Your task to perform on an android device: Do I have any events today? Image 0: 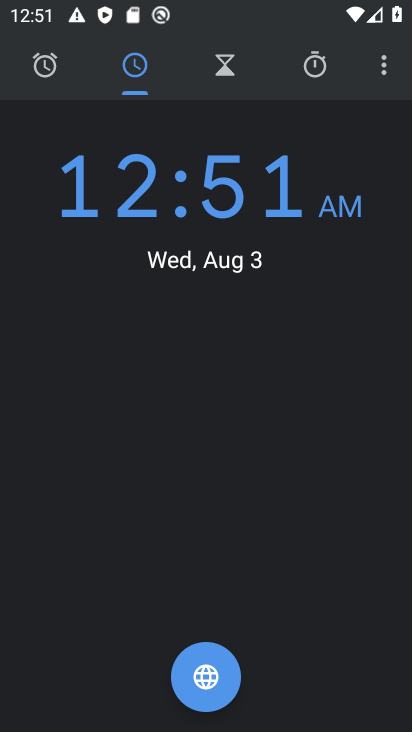
Step 0: press back button
Your task to perform on an android device: Do I have any events today? Image 1: 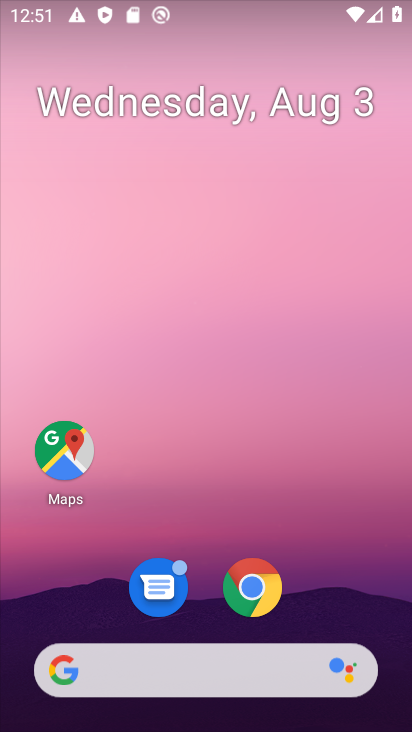
Step 1: drag from (340, 612) to (212, 87)
Your task to perform on an android device: Do I have any events today? Image 2: 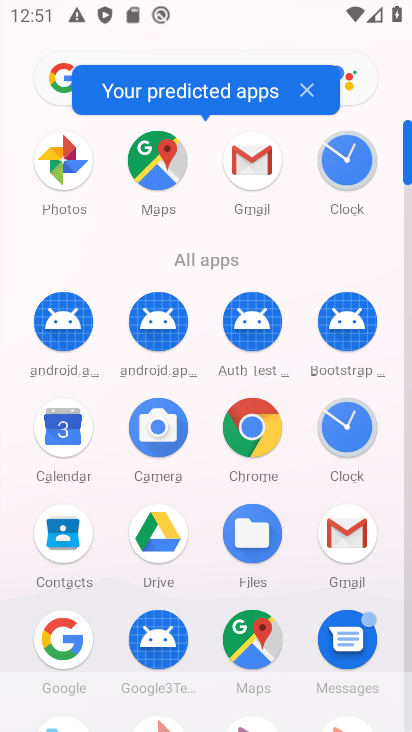
Step 2: drag from (63, 432) to (136, 187)
Your task to perform on an android device: Do I have any events today? Image 3: 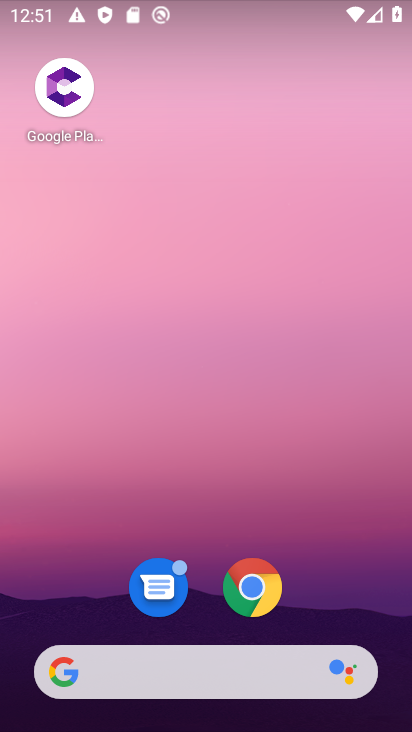
Step 3: drag from (12, 420) to (405, 345)
Your task to perform on an android device: Do I have any events today? Image 4: 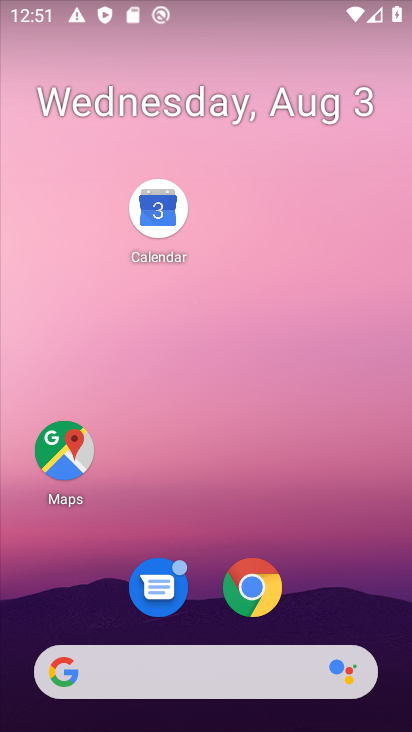
Step 4: click (158, 216)
Your task to perform on an android device: Do I have any events today? Image 5: 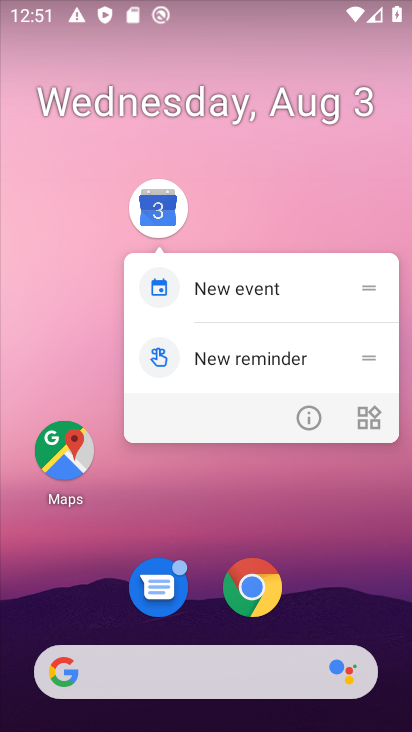
Step 5: click (158, 216)
Your task to perform on an android device: Do I have any events today? Image 6: 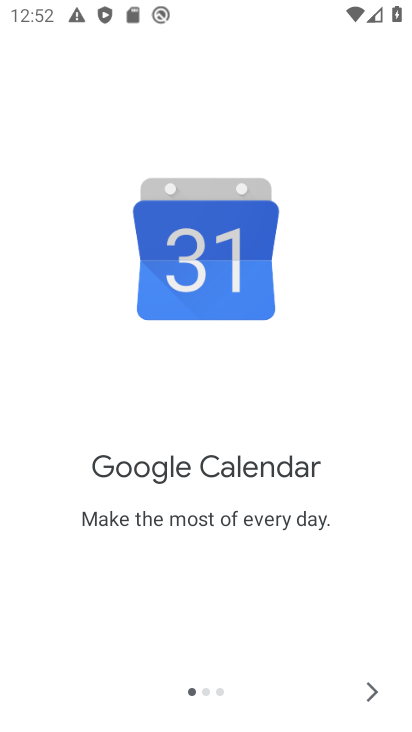
Step 6: click (370, 703)
Your task to perform on an android device: Do I have any events today? Image 7: 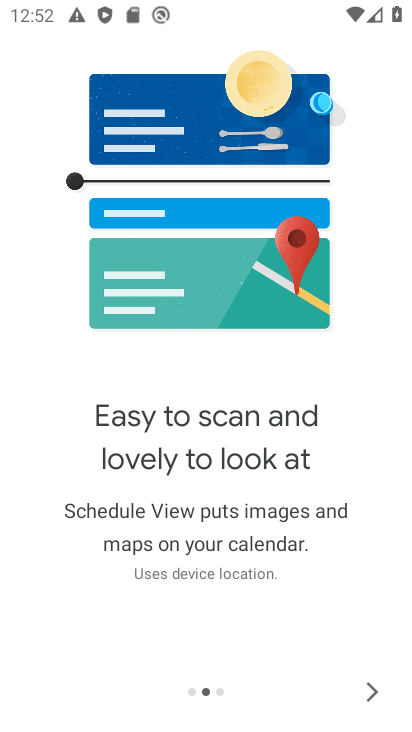
Step 7: click (371, 703)
Your task to perform on an android device: Do I have any events today? Image 8: 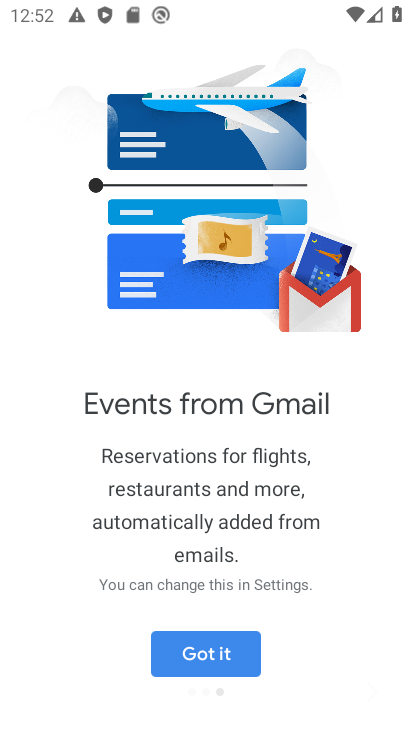
Step 8: click (374, 703)
Your task to perform on an android device: Do I have any events today? Image 9: 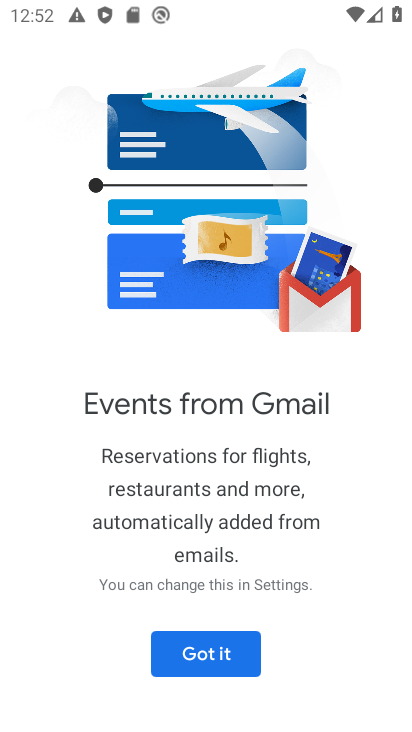
Step 9: click (253, 663)
Your task to perform on an android device: Do I have any events today? Image 10: 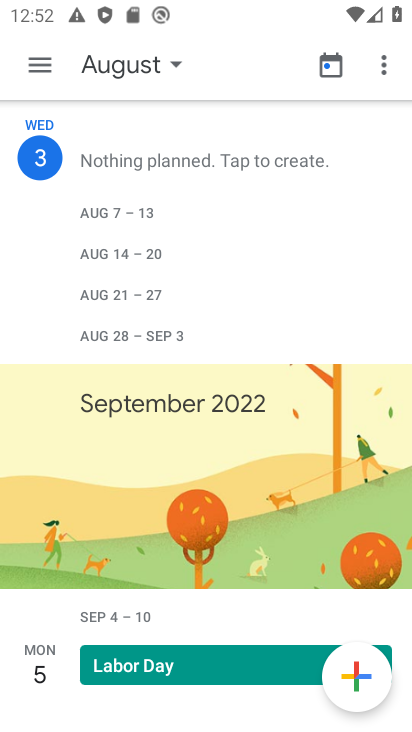
Step 10: click (46, 158)
Your task to perform on an android device: Do I have any events today? Image 11: 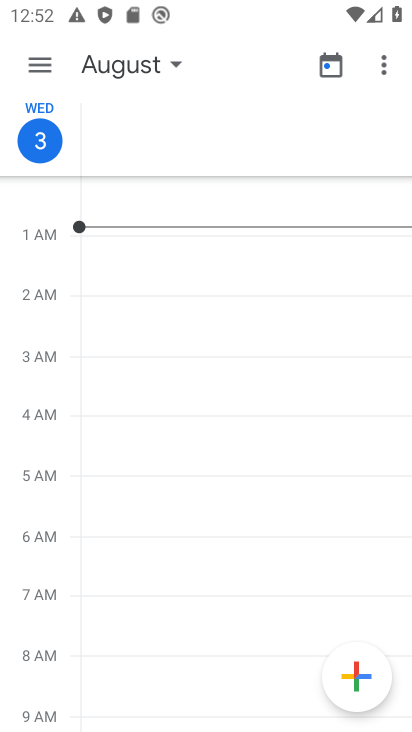
Step 11: task complete